Your task to perform on an android device: turn on the 12-hour format for clock Image 0: 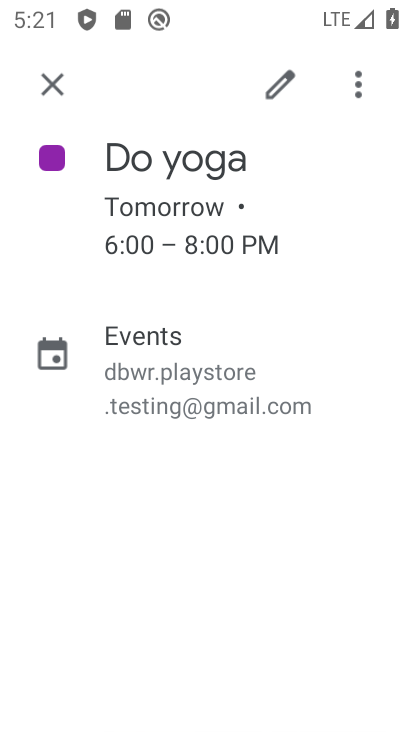
Step 0: press back button
Your task to perform on an android device: turn on the 12-hour format for clock Image 1: 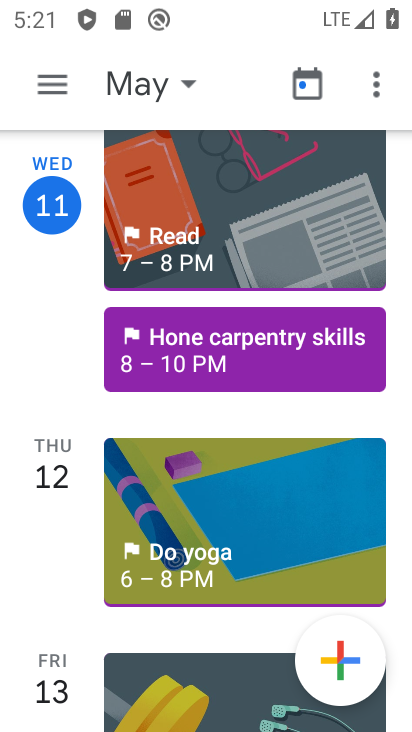
Step 1: press back button
Your task to perform on an android device: turn on the 12-hour format for clock Image 2: 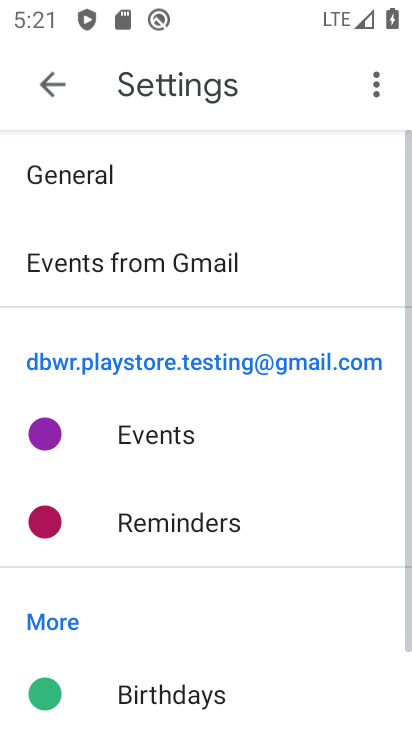
Step 2: press back button
Your task to perform on an android device: turn on the 12-hour format for clock Image 3: 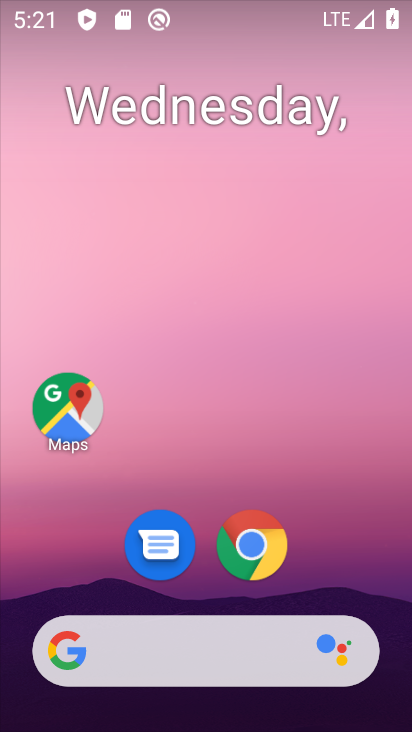
Step 3: drag from (178, 572) to (304, 24)
Your task to perform on an android device: turn on the 12-hour format for clock Image 4: 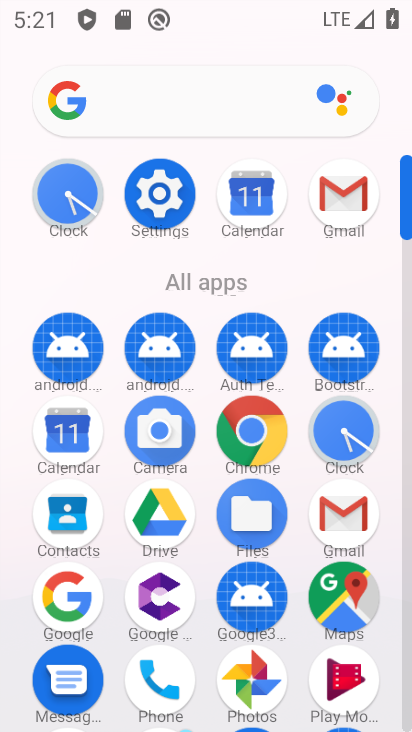
Step 4: click (352, 414)
Your task to perform on an android device: turn on the 12-hour format for clock Image 5: 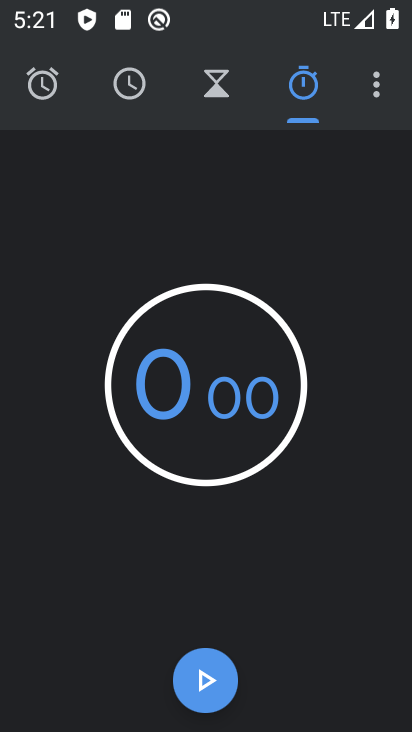
Step 5: click (379, 76)
Your task to perform on an android device: turn on the 12-hour format for clock Image 6: 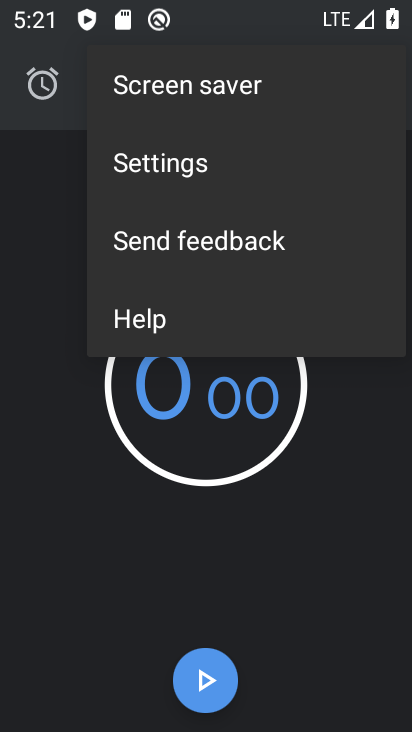
Step 6: click (140, 165)
Your task to perform on an android device: turn on the 12-hour format for clock Image 7: 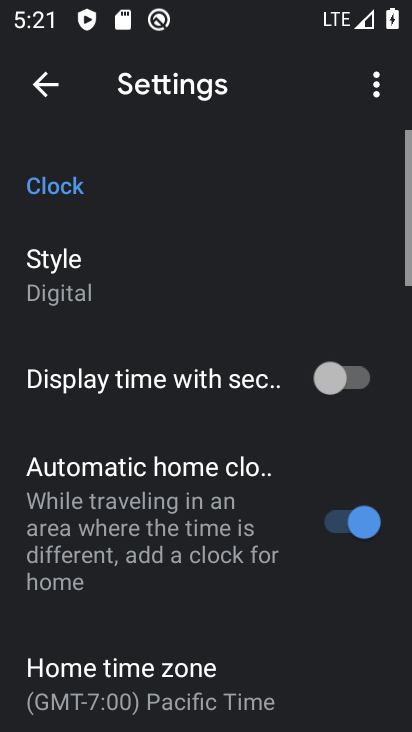
Step 7: drag from (158, 652) to (237, 180)
Your task to perform on an android device: turn on the 12-hour format for clock Image 8: 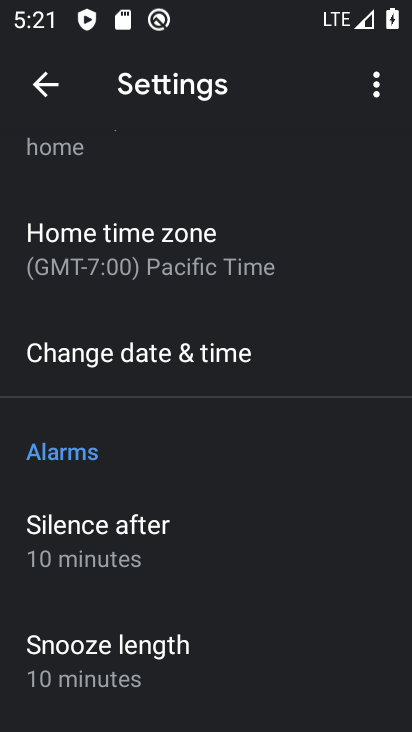
Step 8: click (101, 350)
Your task to perform on an android device: turn on the 12-hour format for clock Image 9: 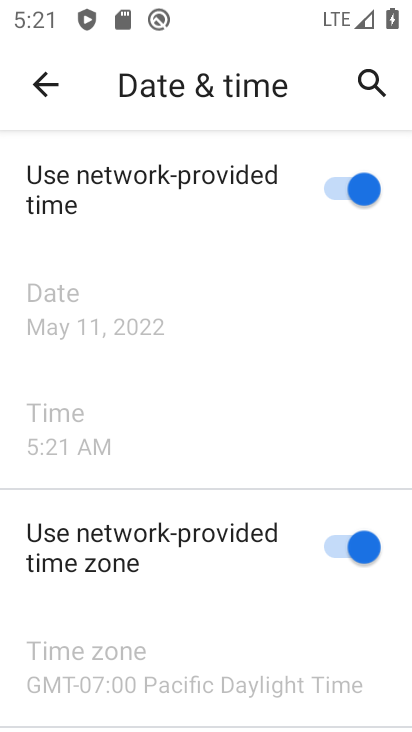
Step 9: task complete